Your task to perform on an android device: Is it going to rain this weekend? Image 0: 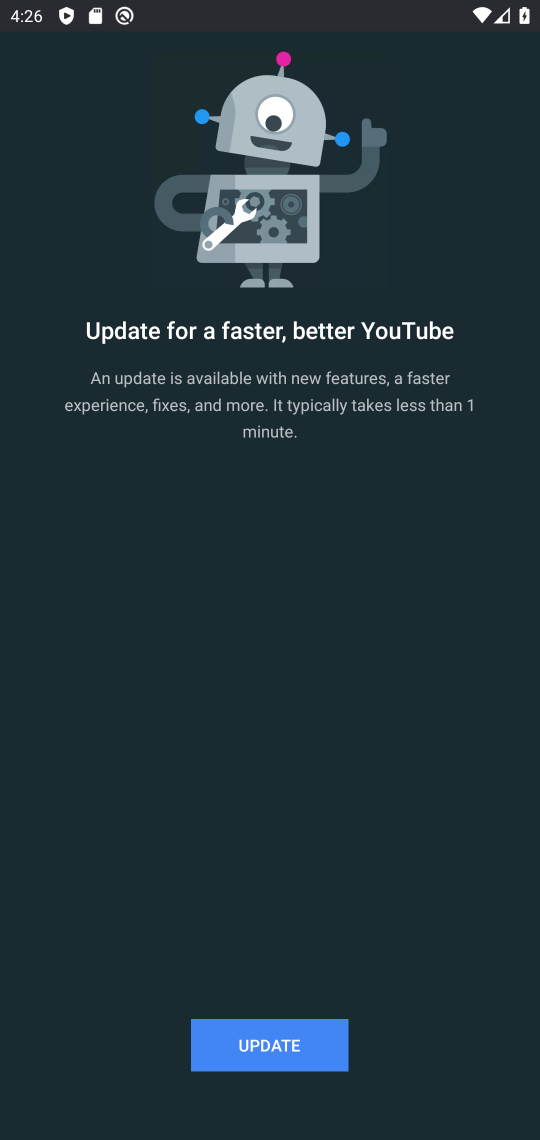
Step 0: press home button
Your task to perform on an android device: Is it going to rain this weekend? Image 1: 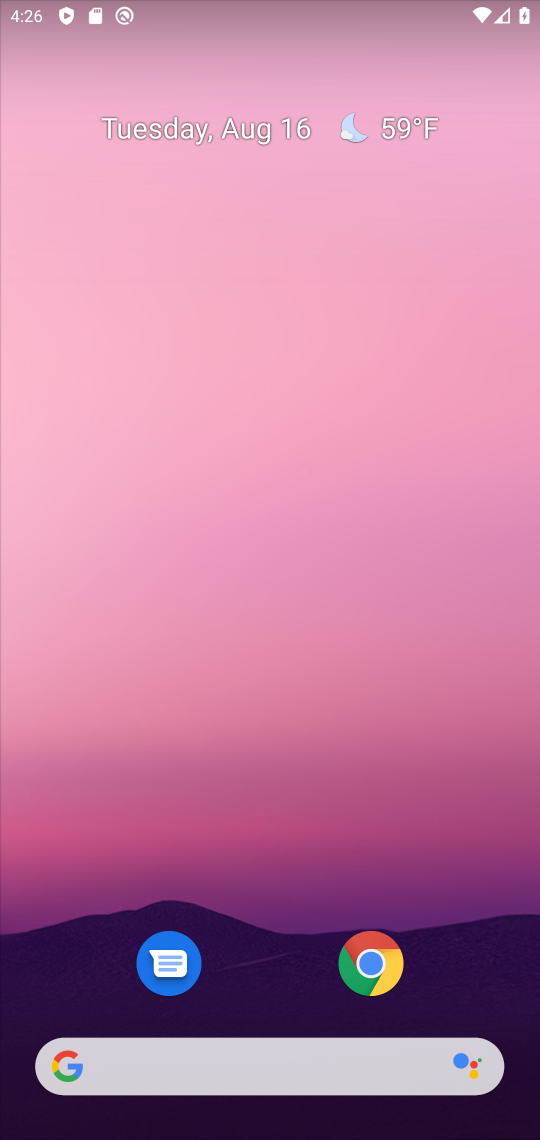
Step 1: click (49, 1069)
Your task to perform on an android device: Is it going to rain this weekend? Image 2: 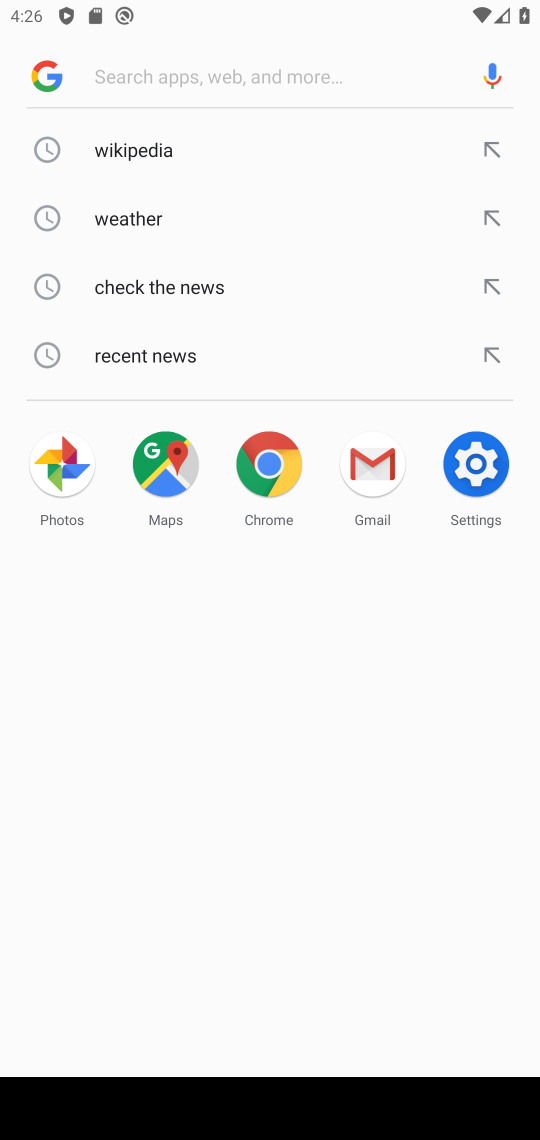
Step 2: type "Is it going to rain this weekend?"
Your task to perform on an android device: Is it going to rain this weekend? Image 3: 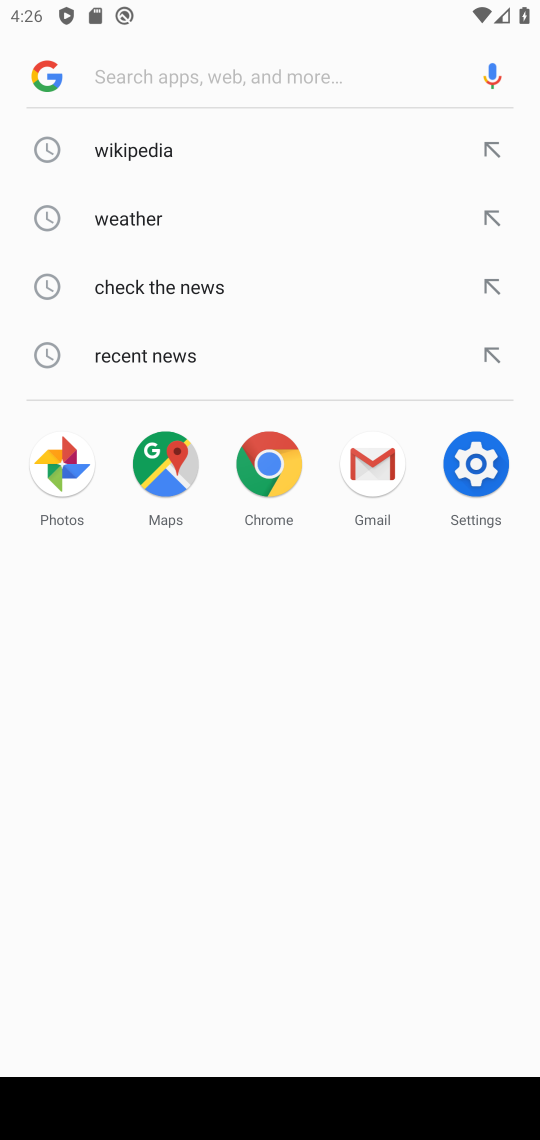
Step 3: click (231, 67)
Your task to perform on an android device: Is it going to rain this weekend? Image 4: 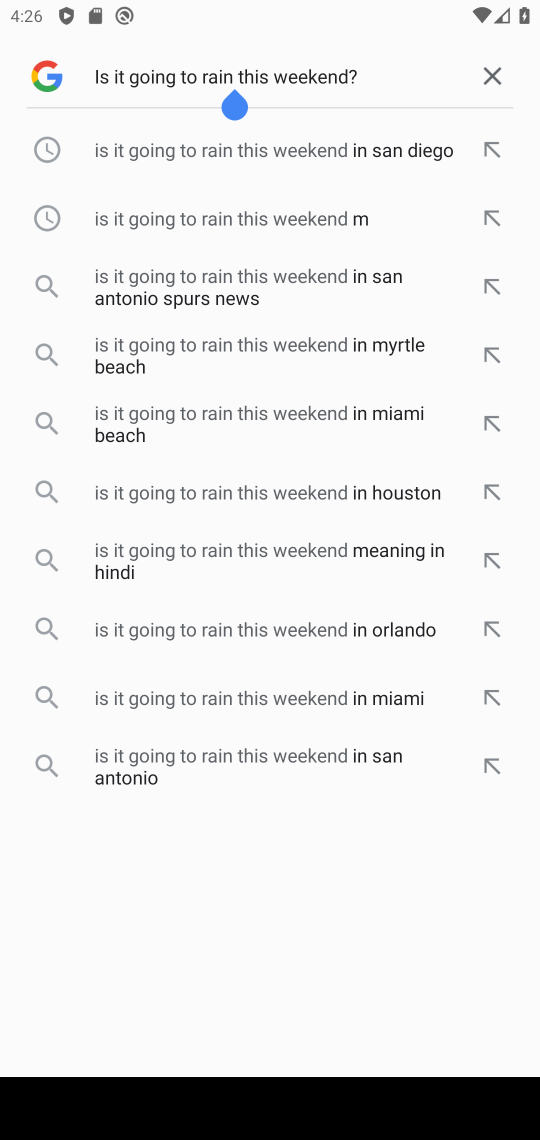
Step 4: press enter
Your task to perform on an android device: Is it going to rain this weekend? Image 5: 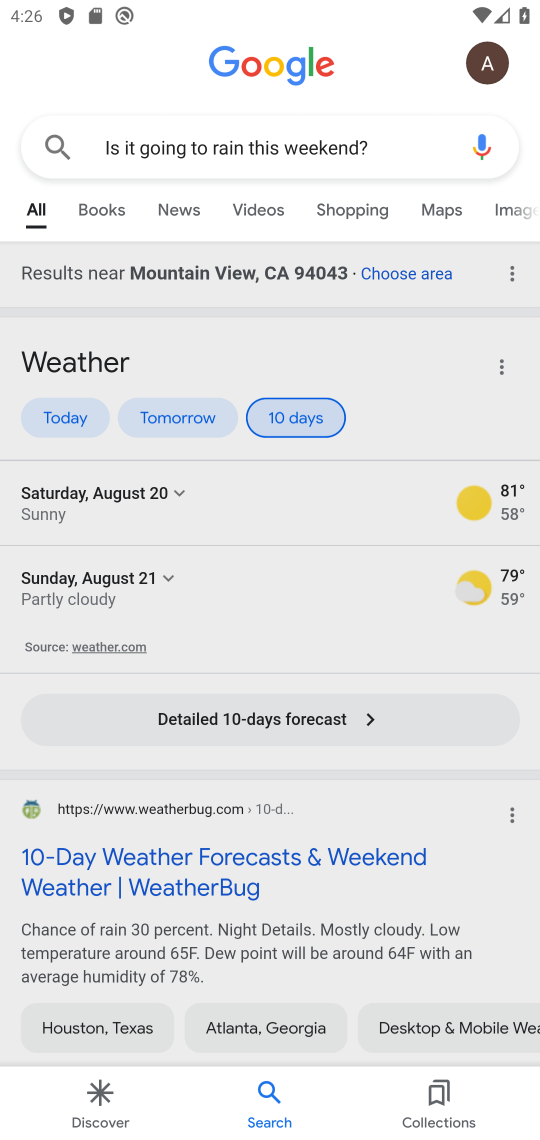
Step 5: task complete